Your task to perform on an android device: What's on my calendar today? Image 0: 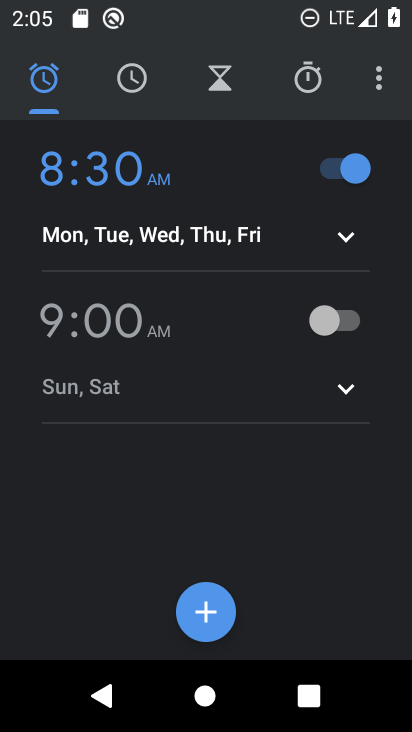
Step 0: press home button
Your task to perform on an android device: What's on my calendar today? Image 1: 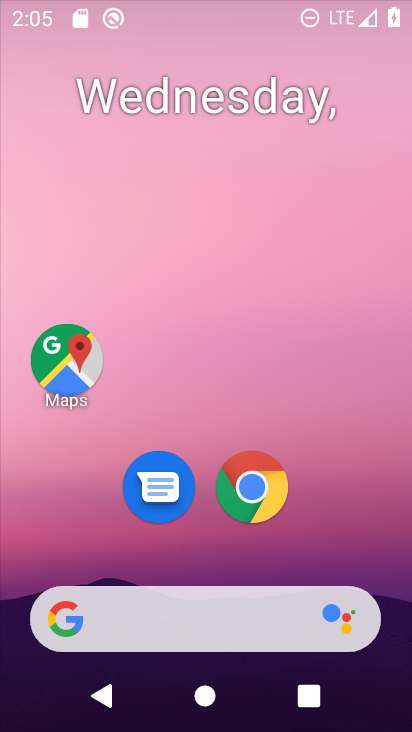
Step 1: drag from (400, 612) to (219, 82)
Your task to perform on an android device: What's on my calendar today? Image 2: 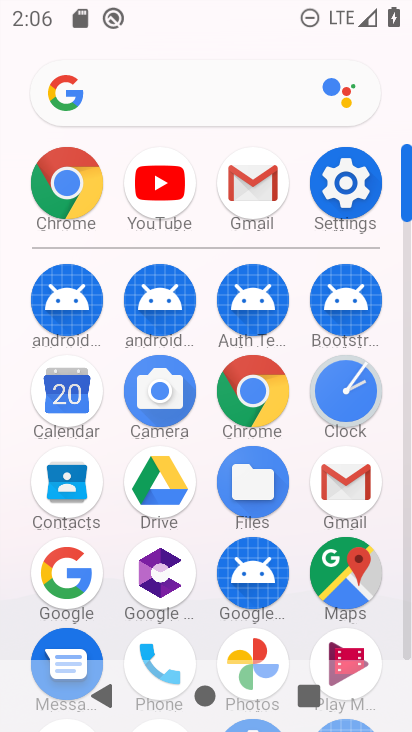
Step 2: click (69, 380)
Your task to perform on an android device: What's on my calendar today? Image 3: 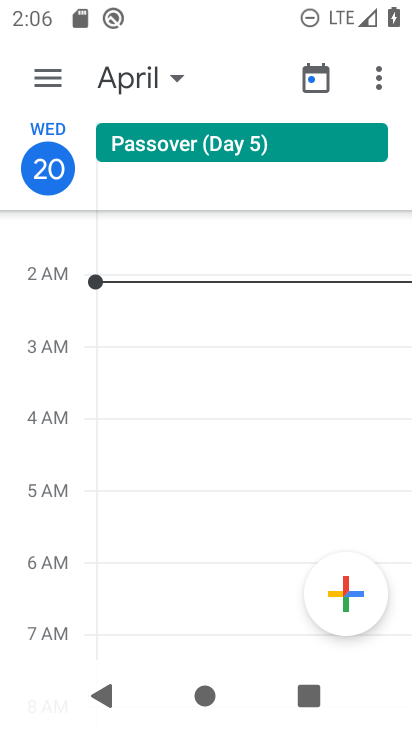
Step 3: click (99, 83)
Your task to perform on an android device: What's on my calendar today? Image 4: 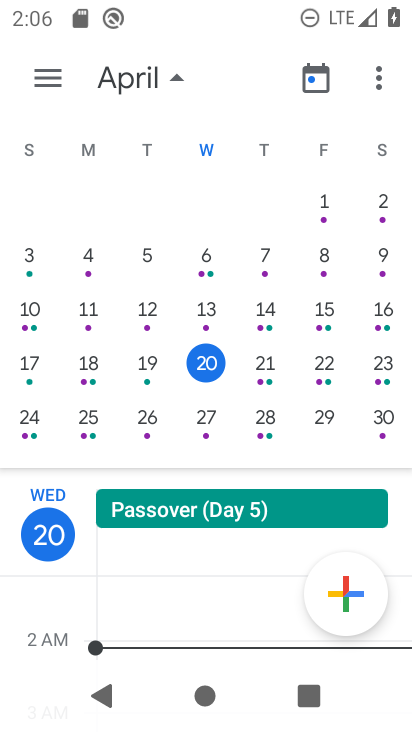
Step 4: click (211, 363)
Your task to perform on an android device: What's on my calendar today? Image 5: 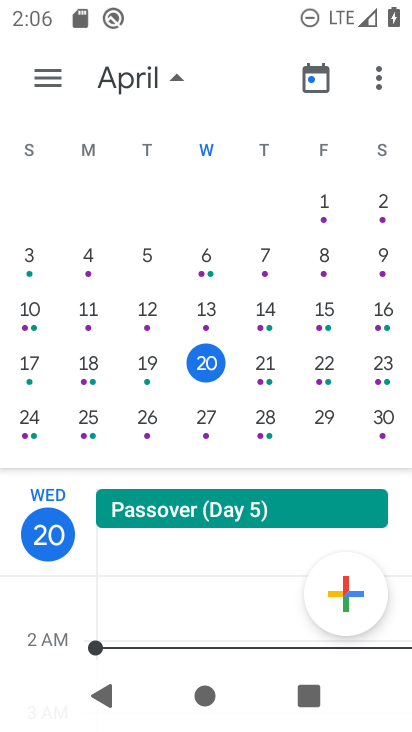
Step 5: click (174, 508)
Your task to perform on an android device: What's on my calendar today? Image 6: 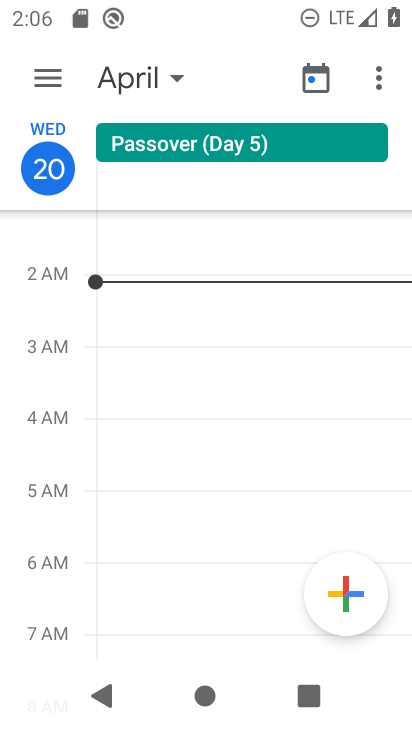
Step 6: task complete